Your task to perform on an android device: open app "Microsoft Outlook" (install if not already installed) and go to login screen Image 0: 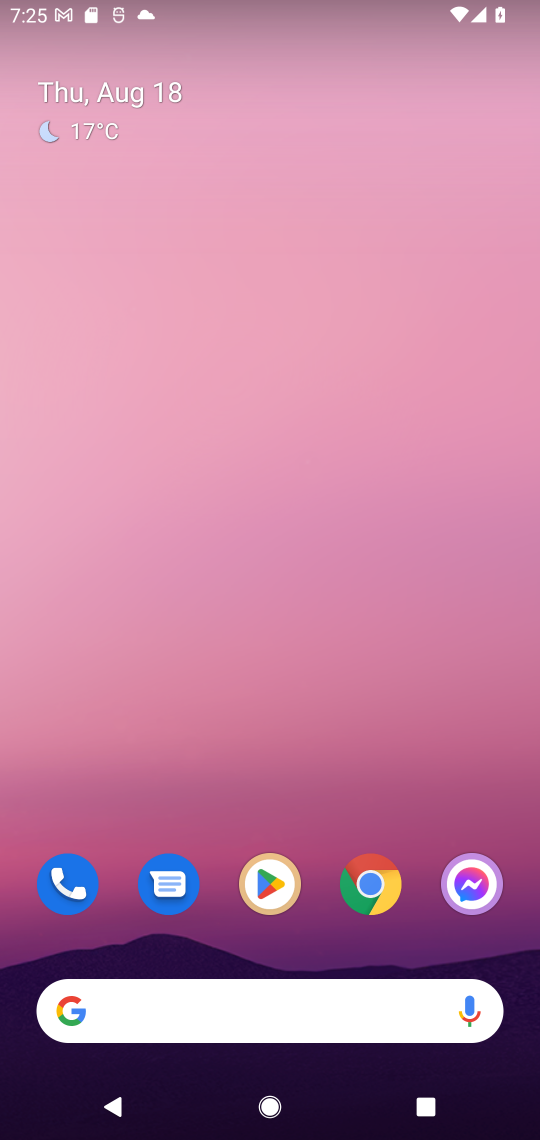
Step 0: drag from (284, 1003) to (246, 116)
Your task to perform on an android device: open app "Microsoft Outlook" (install if not already installed) and go to login screen Image 1: 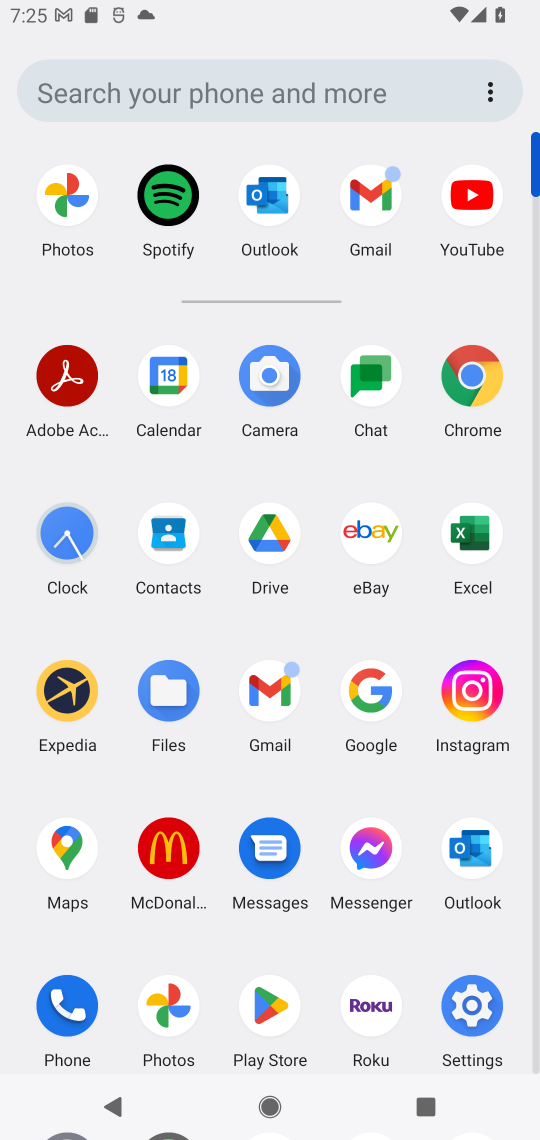
Step 1: click (276, 1009)
Your task to perform on an android device: open app "Microsoft Outlook" (install if not already installed) and go to login screen Image 2: 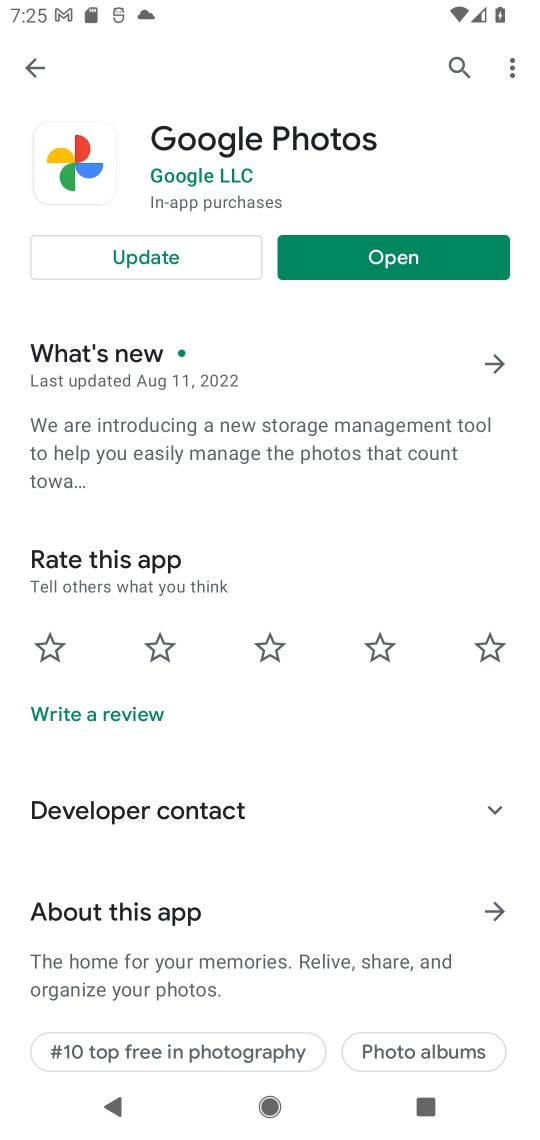
Step 2: press back button
Your task to perform on an android device: open app "Microsoft Outlook" (install if not already installed) and go to login screen Image 3: 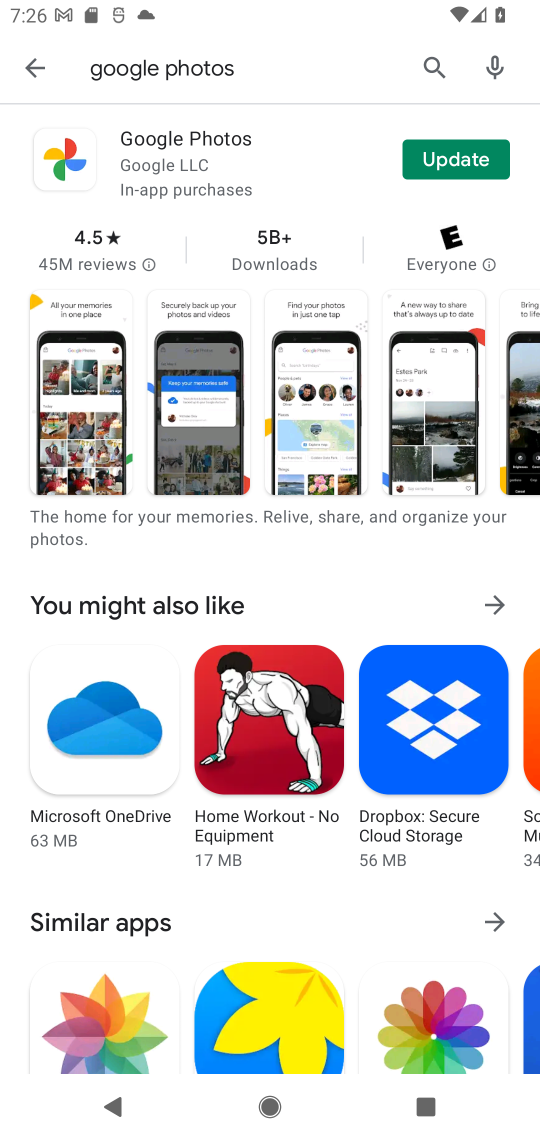
Step 3: press back button
Your task to perform on an android device: open app "Microsoft Outlook" (install if not already installed) and go to login screen Image 4: 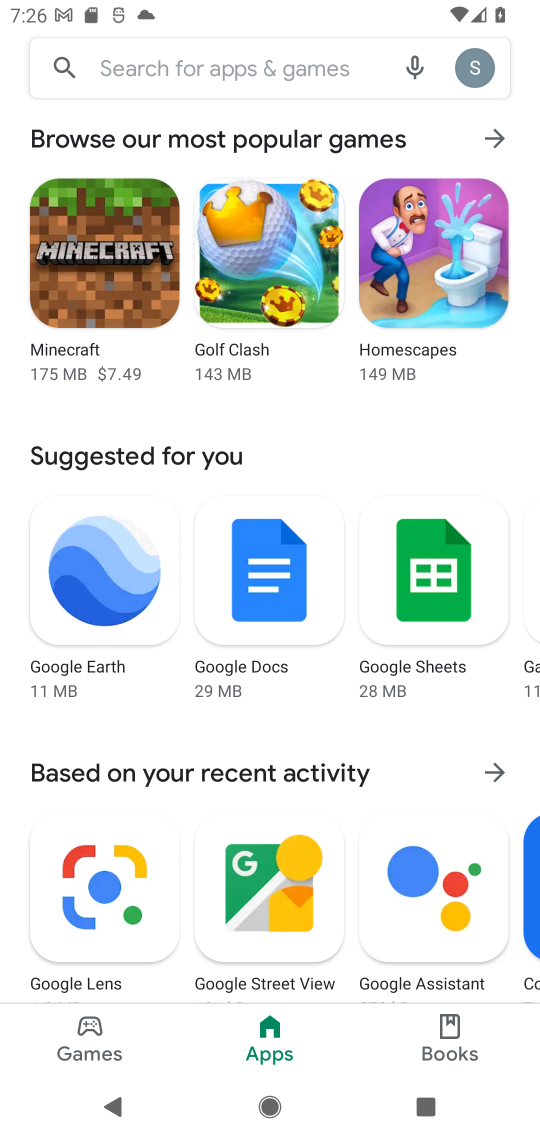
Step 4: click (316, 68)
Your task to perform on an android device: open app "Microsoft Outlook" (install if not already installed) and go to login screen Image 5: 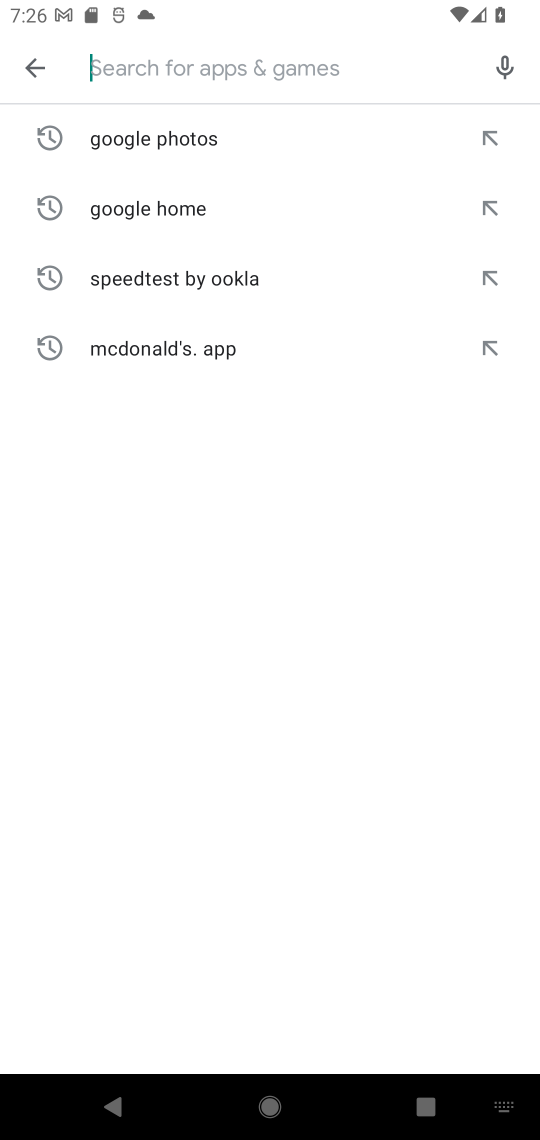
Step 5: type "Microsoft Outlook"
Your task to perform on an android device: open app "Microsoft Outlook" (install if not already installed) and go to login screen Image 6: 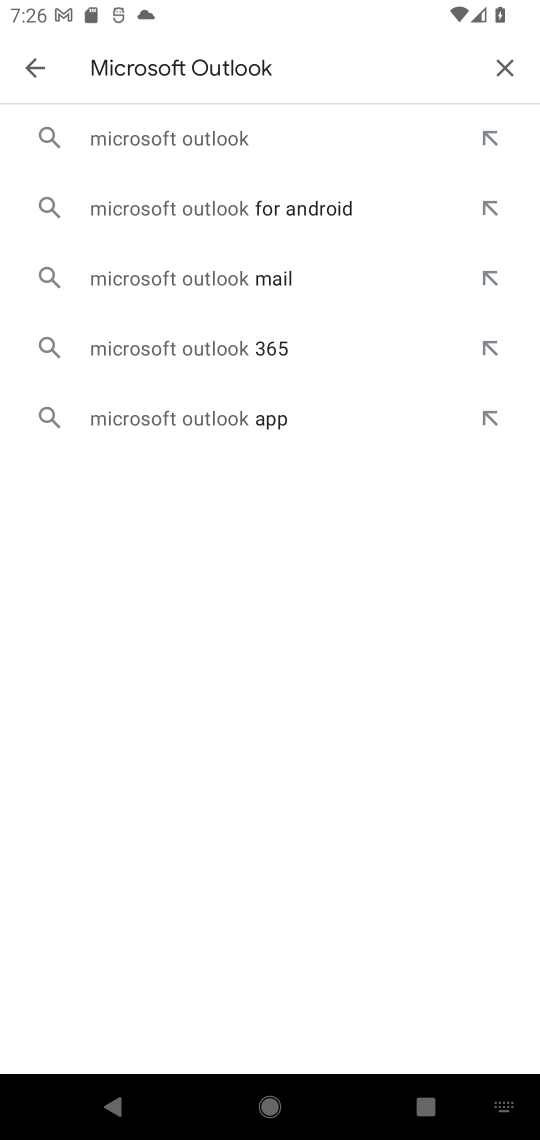
Step 6: click (182, 144)
Your task to perform on an android device: open app "Microsoft Outlook" (install if not already installed) and go to login screen Image 7: 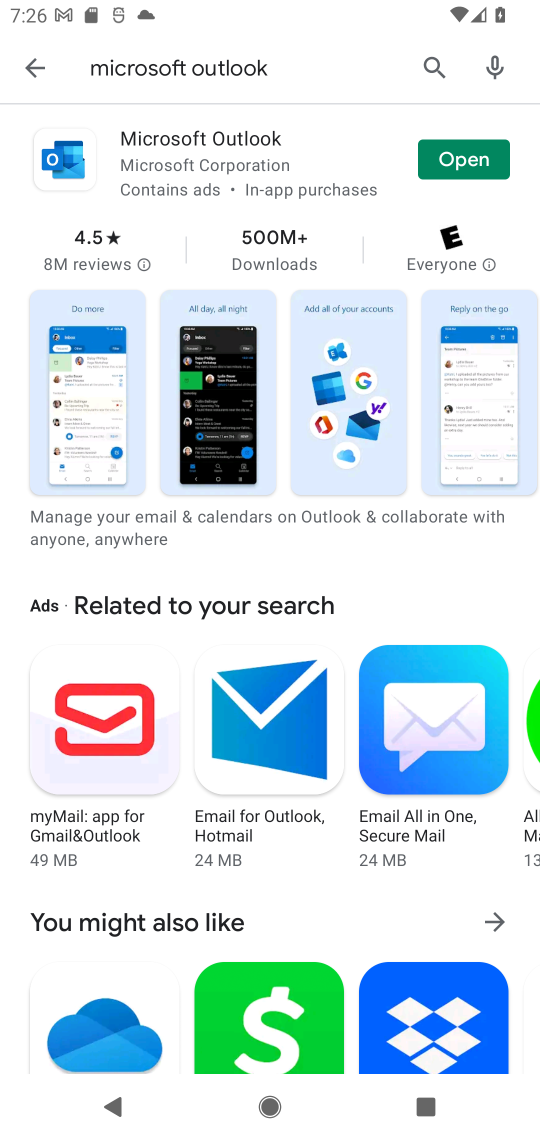
Step 7: click (456, 163)
Your task to perform on an android device: open app "Microsoft Outlook" (install if not already installed) and go to login screen Image 8: 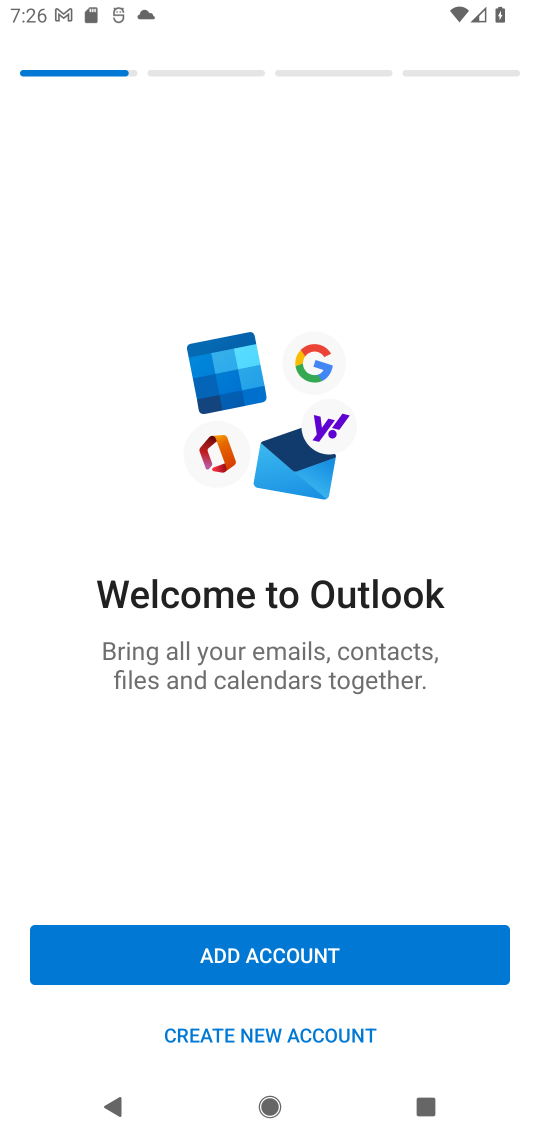
Step 8: click (283, 964)
Your task to perform on an android device: open app "Microsoft Outlook" (install if not already installed) and go to login screen Image 9: 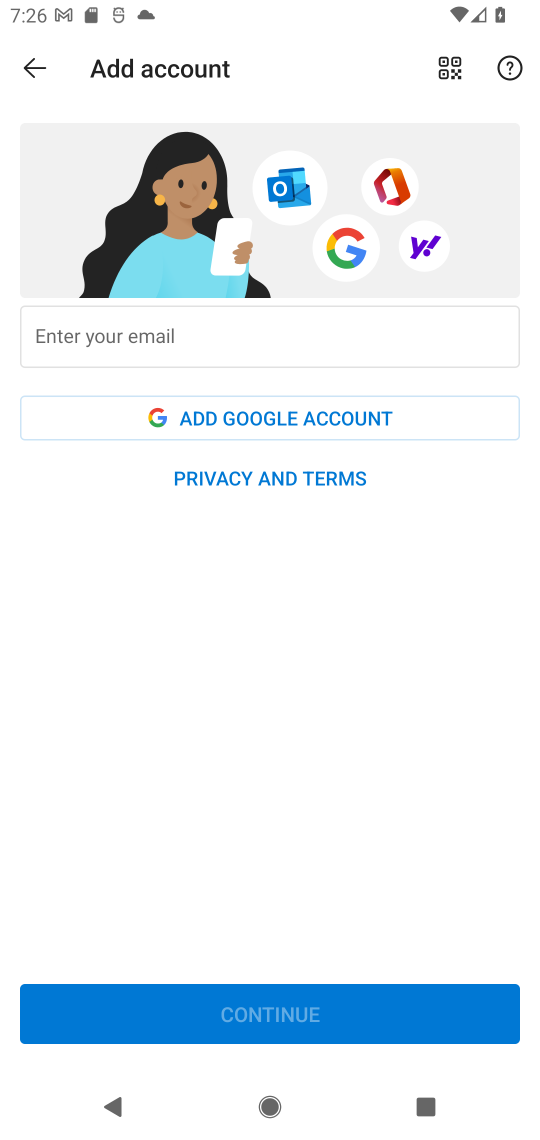
Step 9: click (270, 425)
Your task to perform on an android device: open app "Microsoft Outlook" (install if not already installed) and go to login screen Image 10: 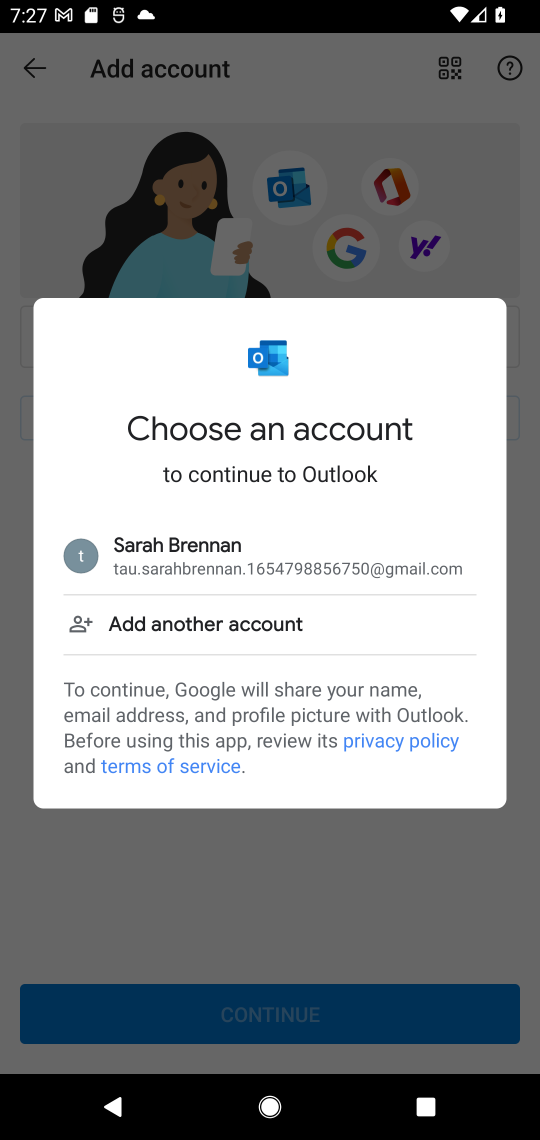
Step 10: task complete